Your task to perform on an android device: Open the map Image 0: 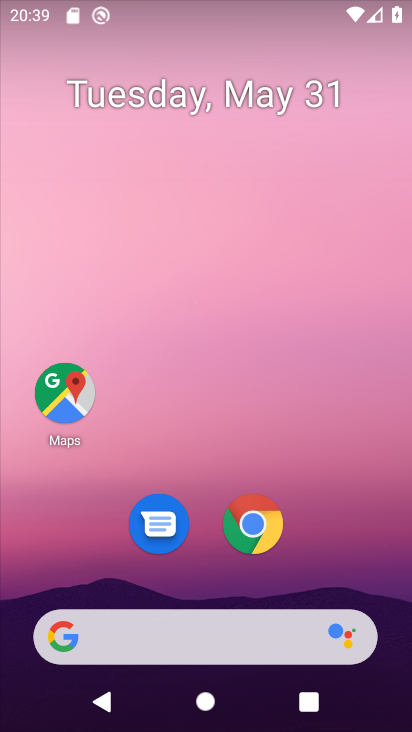
Step 0: click (61, 398)
Your task to perform on an android device: Open the map Image 1: 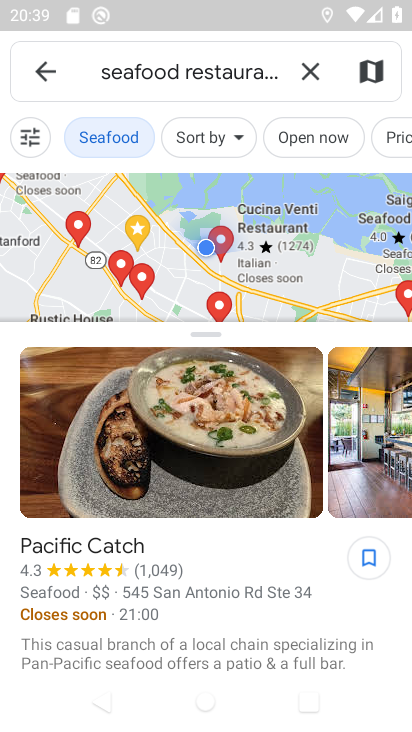
Step 1: click (304, 60)
Your task to perform on an android device: Open the map Image 2: 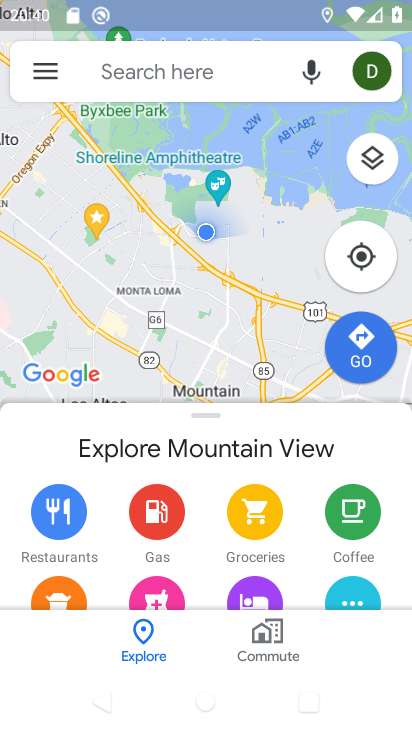
Step 2: task complete